Your task to perform on an android device: Open sound settings Image 0: 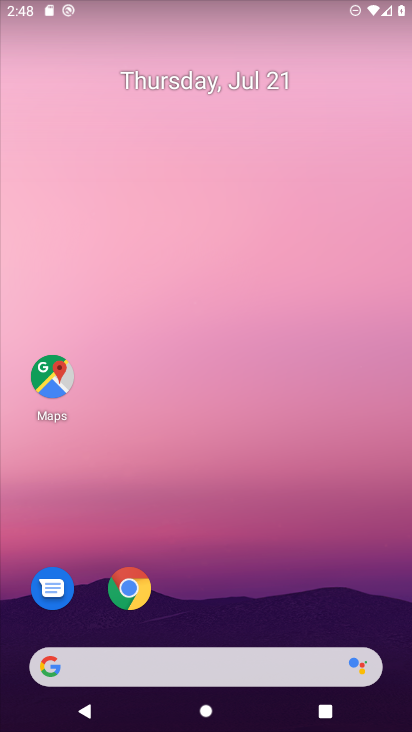
Step 0: drag from (270, 680) to (312, 2)
Your task to perform on an android device: Open sound settings Image 1: 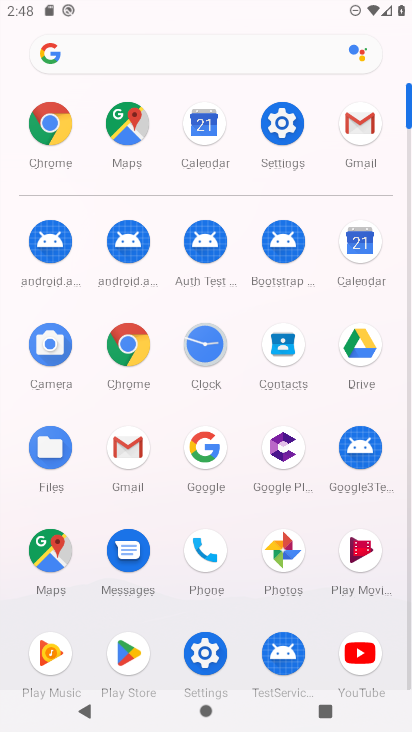
Step 1: click (283, 134)
Your task to perform on an android device: Open sound settings Image 2: 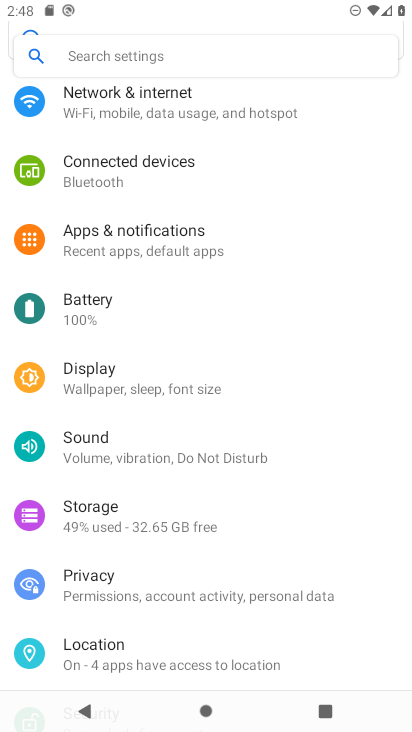
Step 2: click (156, 452)
Your task to perform on an android device: Open sound settings Image 3: 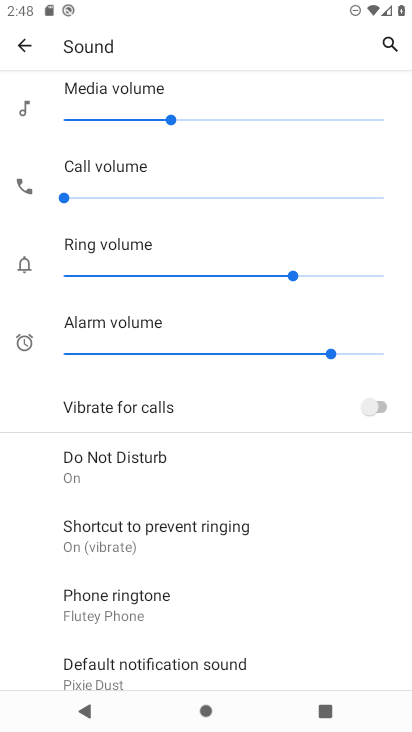
Step 3: task complete